Your task to perform on an android device: What's the weather going to be this weekend? Image 0: 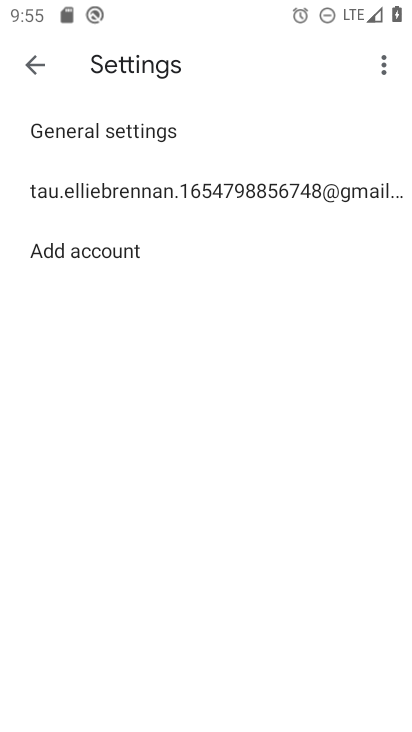
Step 0: press home button
Your task to perform on an android device: What's the weather going to be this weekend? Image 1: 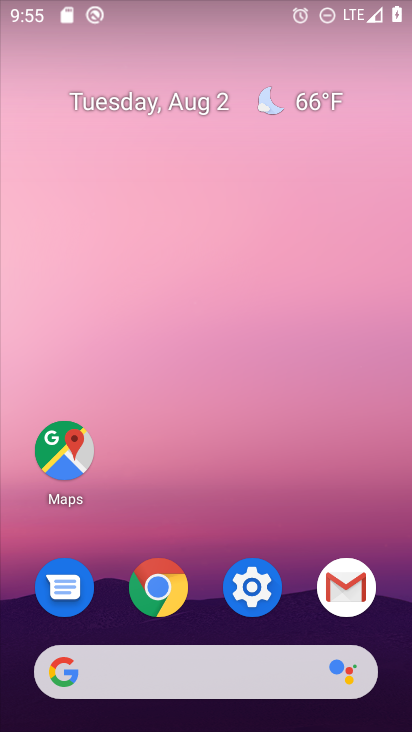
Step 1: click (159, 671)
Your task to perform on an android device: What's the weather going to be this weekend? Image 2: 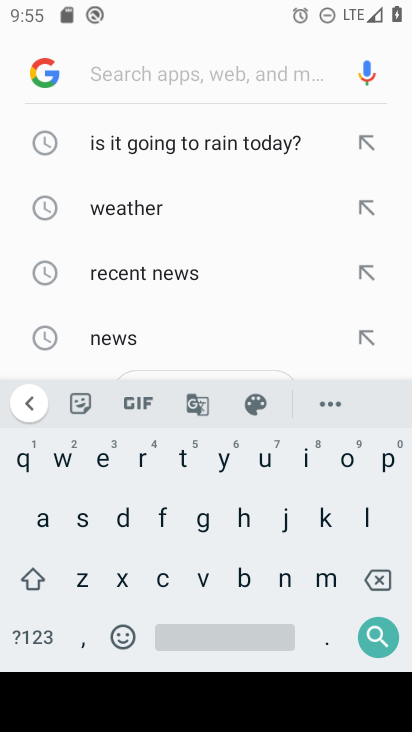
Step 2: click (60, 466)
Your task to perform on an android device: What's the weather going to be this weekend? Image 3: 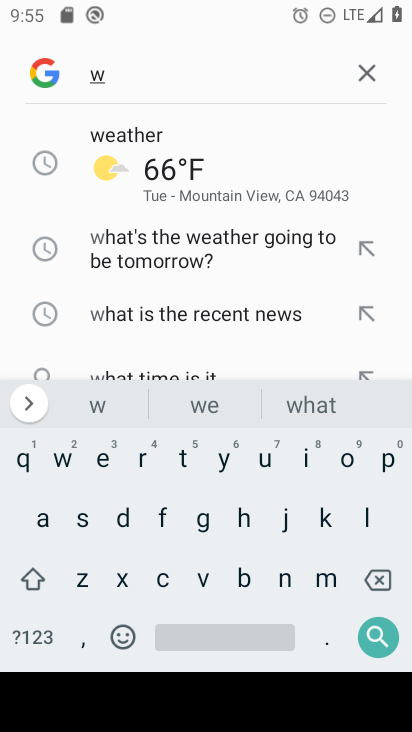
Step 3: click (248, 518)
Your task to perform on an android device: What's the weather going to be this weekend? Image 4: 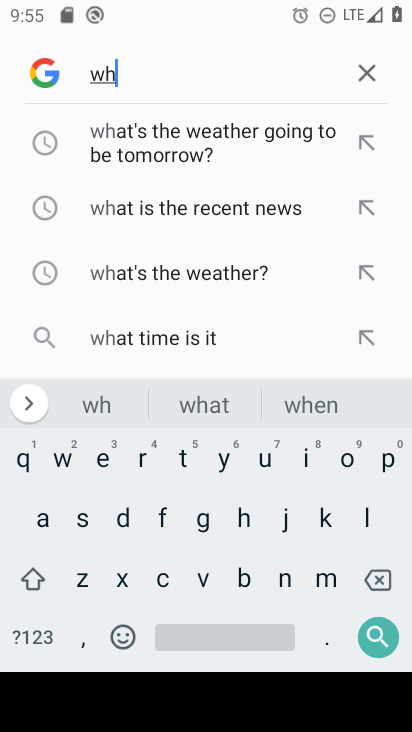
Step 4: click (219, 273)
Your task to perform on an android device: What's the weather going to be this weekend? Image 5: 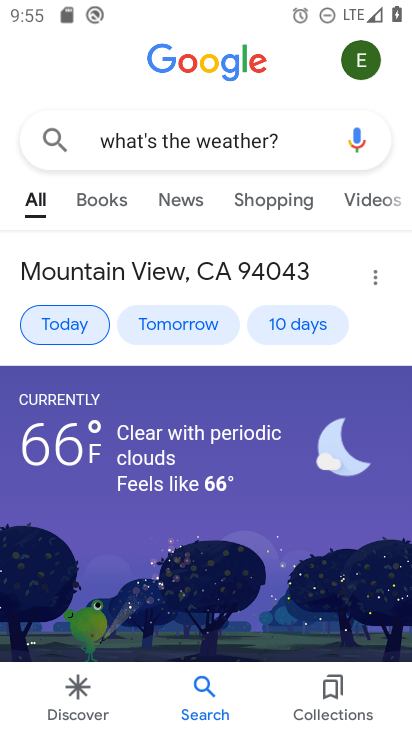
Step 5: click (294, 326)
Your task to perform on an android device: What's the weather going to be this weekend? Image 6: 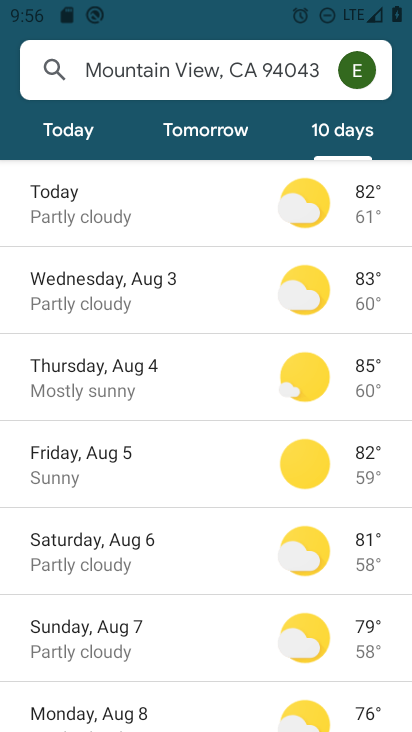
Step 6: task complete